Your task to perform on an android device: stop showing notifications on the lock screen Image 0: 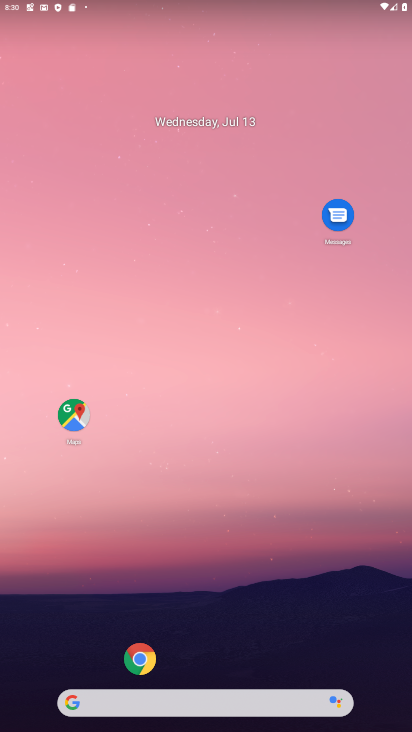
Step 0: drag from (43, 660) to (194, 97)
Your task to perform on an android device: stop showing notifications on the lock screen Image 1: 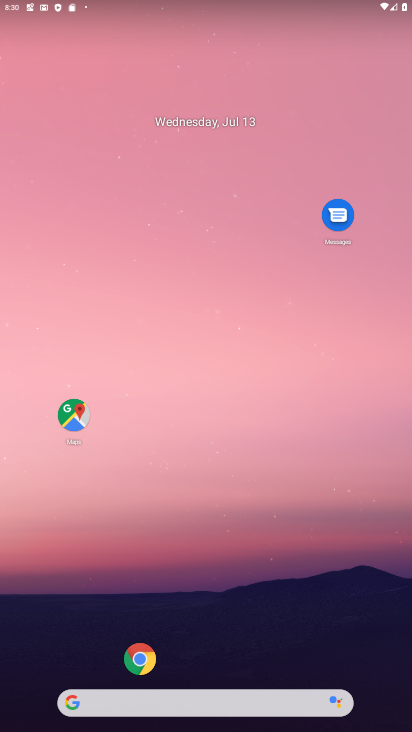
Step 1: task complete